Your task to perform on an android device: Open location settings Image 0: 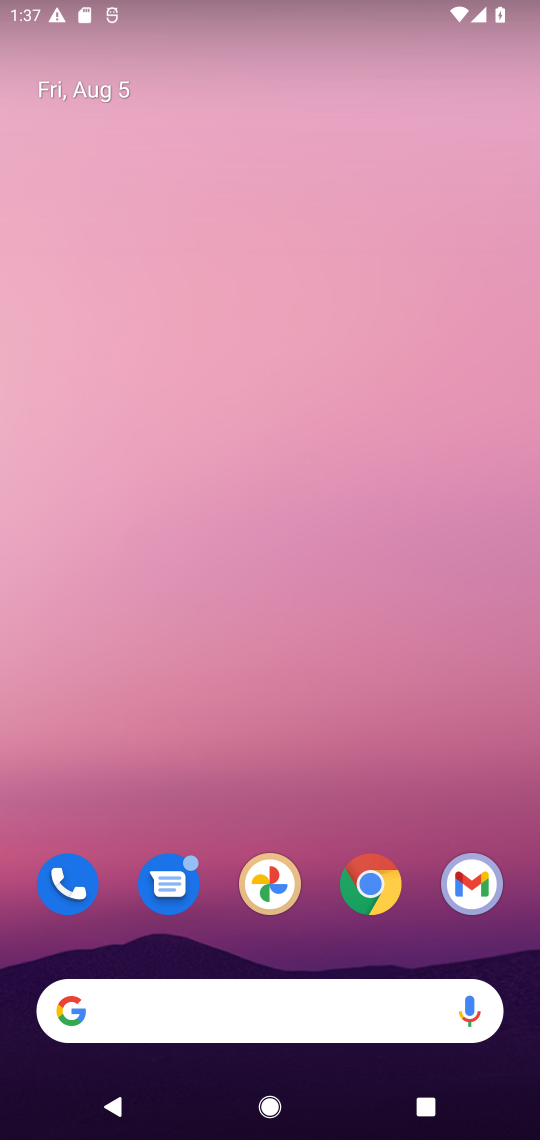
Step 0: drag from (465, 921) to (163, 29)
Your task to perform on an android device: Open location settings Image 1: 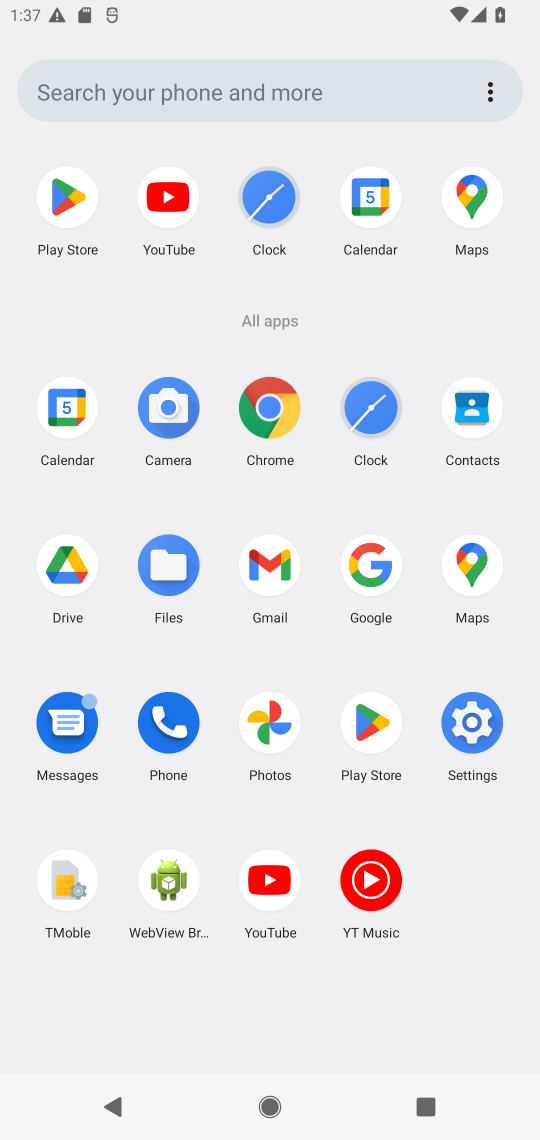
Step 1: click (466, 740)
Your task to perform on an android device: Open location settings Image 2: 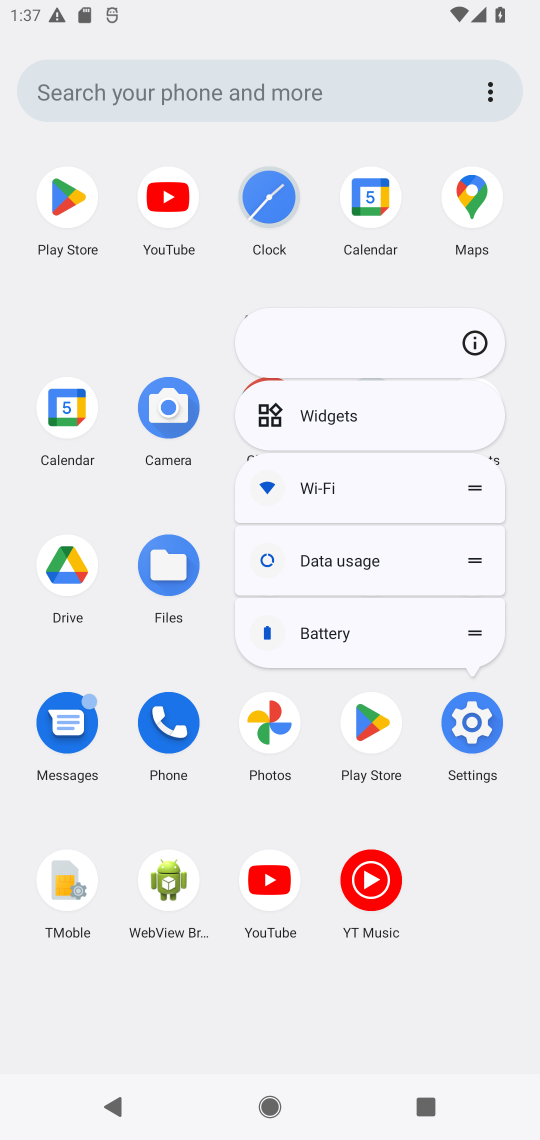
Step 2: click (466, 740)
Your task to perform on an android device: Open location settings Image 3: 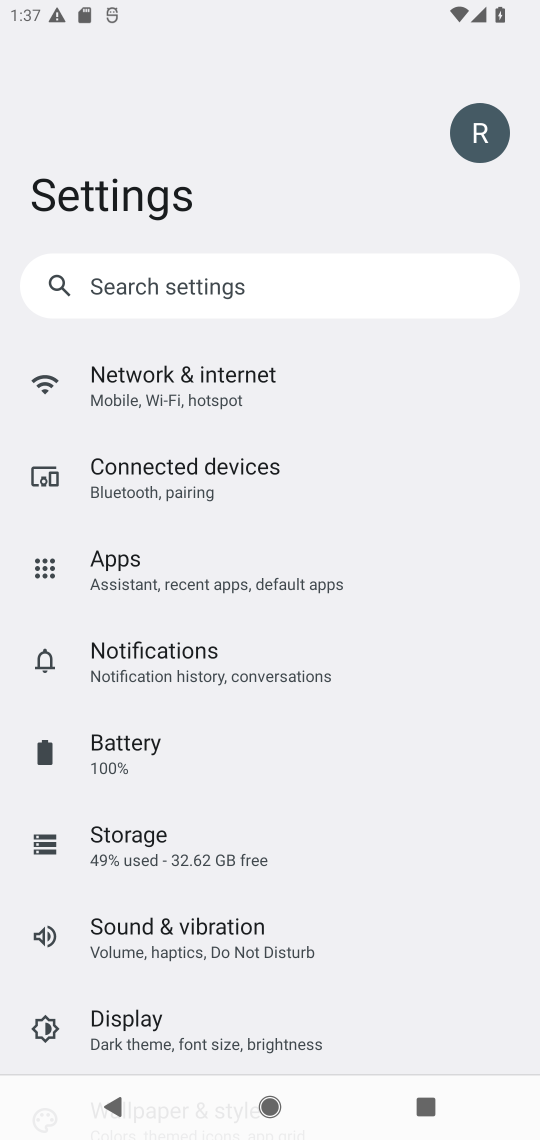
Step 3: drag from (317, 971) to (254, 364)
Your task to perform on an android device: Open location settings Image 4: 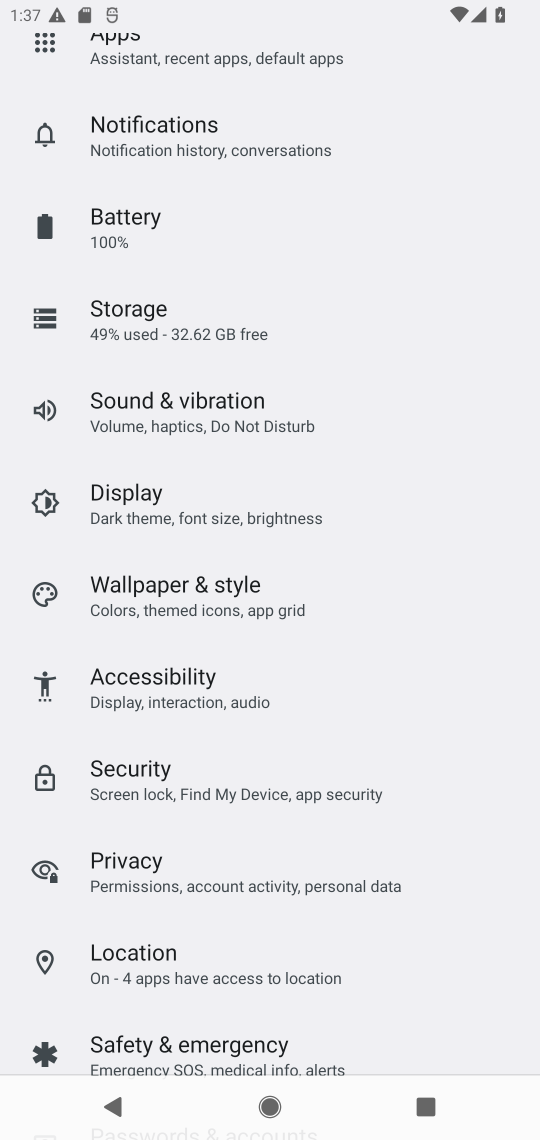
Step 4: click (190, 947)
Your task to perform on an android device: Open location settings Image 5: 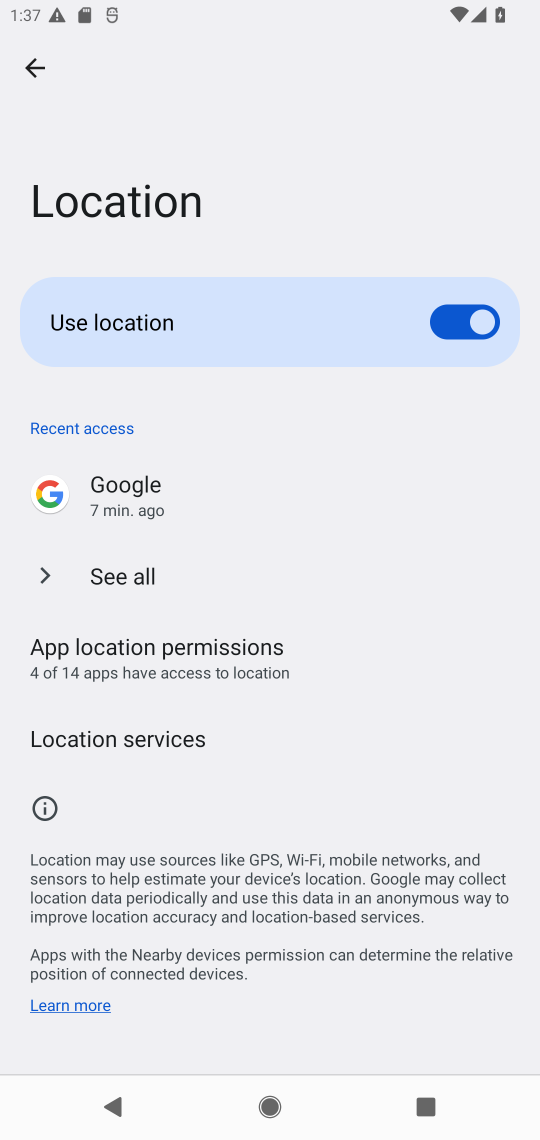
Step 5: task complete